Your task to perform on an android device: turn on the 12-hour format for clock Image 0: 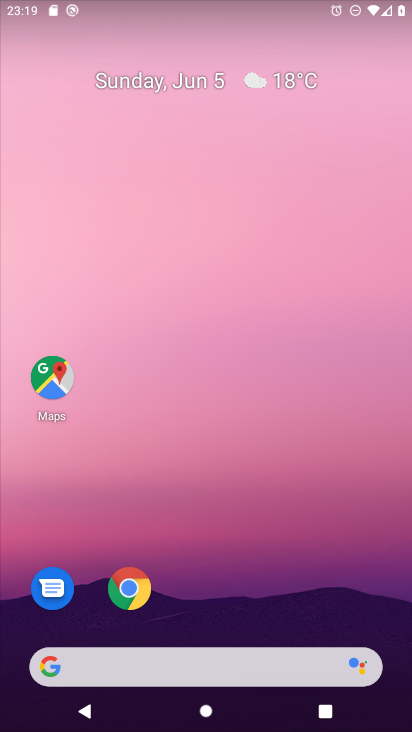
Step 0: drag from (329, 603) to (327, 191)
Your task to perform on an android device: turn on the 12-hour format for clock Image 1: 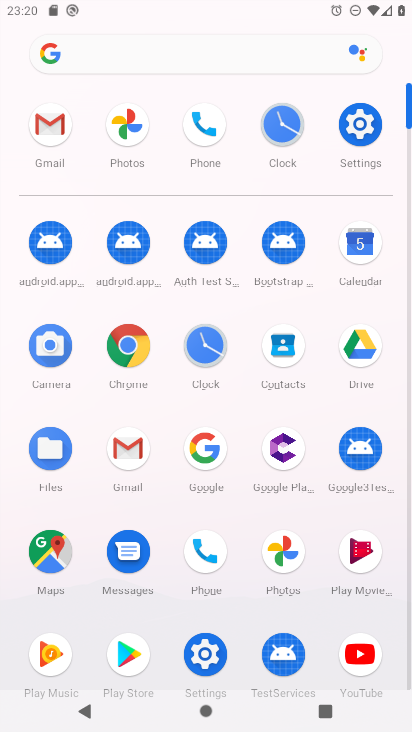
Step 1: click (212, 352)
Your task to perform on an android device: turn on the 12-hour format for clock Image 2: 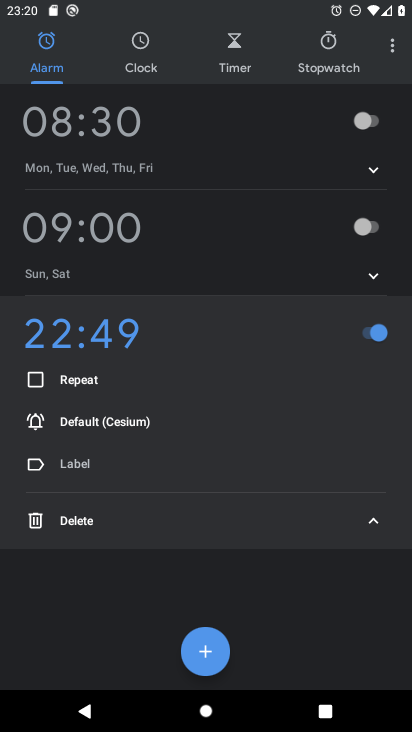
Step 2: click (395, 59)
Your task to perform on an android device: turn on the 12-hour format for clock Image 3: 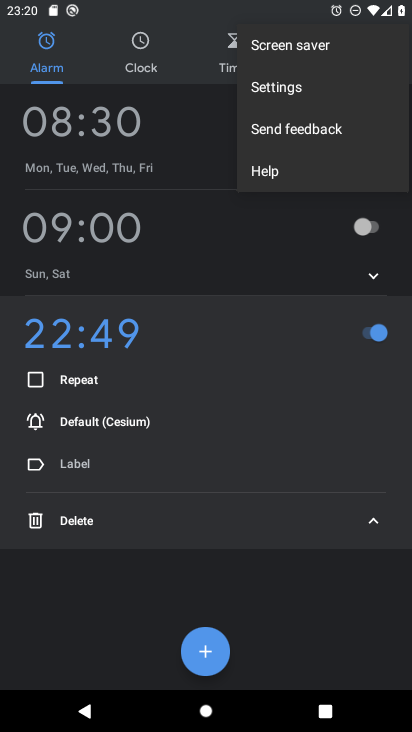
Step 3: click (302, 90)
Your task to perform on an android device: turn on the 12-hour format for clock Image 4: 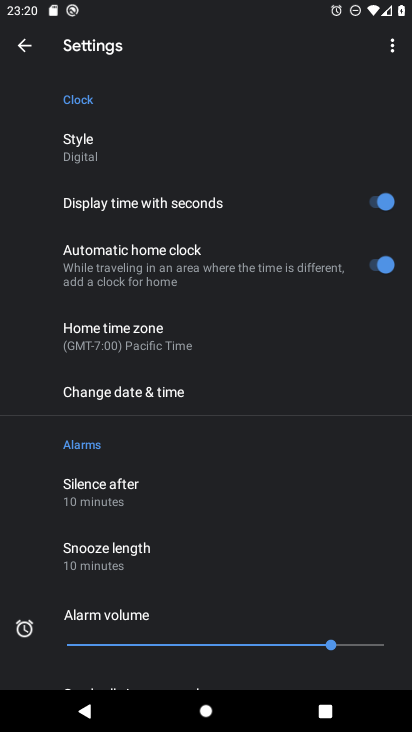
Step 4: drag from (268, 455) to (284, 355)
Your task to perform on an android device: turn on the 12-hour format for clock Image 5: 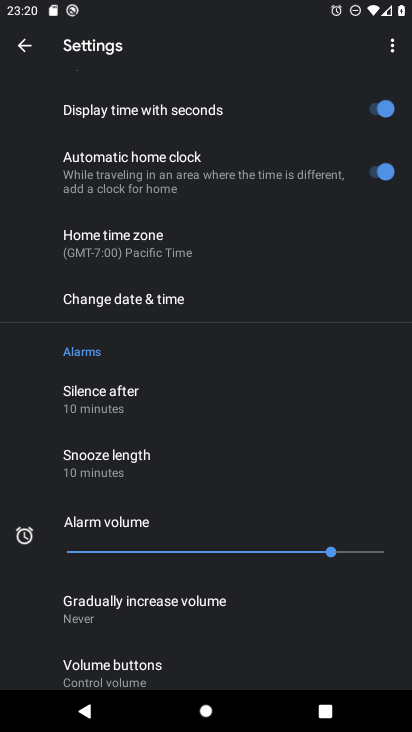
Step 5: click (208, 317)
Your task to perform on an android device: turn on the 12-hour format for clock Image 6: 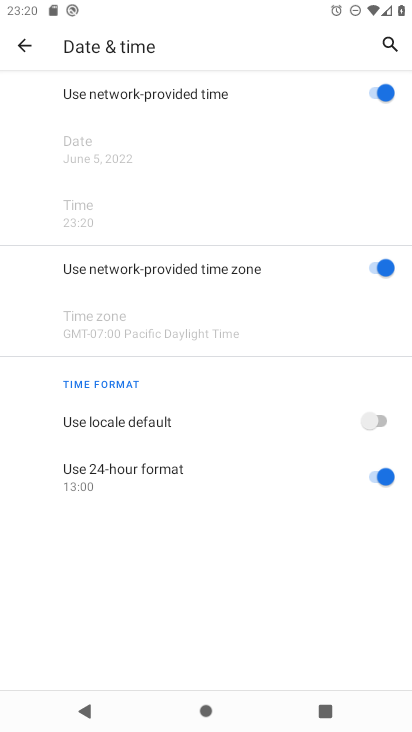
Step 6: click (376, 473)
Your task to perform on an android device: turn on the 12-hour format for clock Image 7: 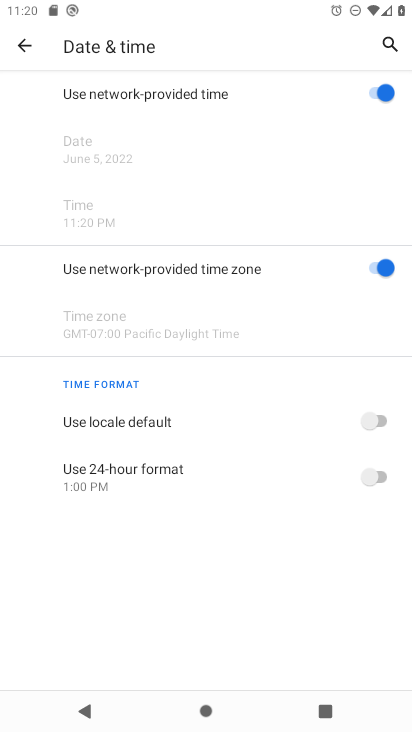
Step 7: task complete